Your task to perform on an android device: change alarm snooze length Image 0: 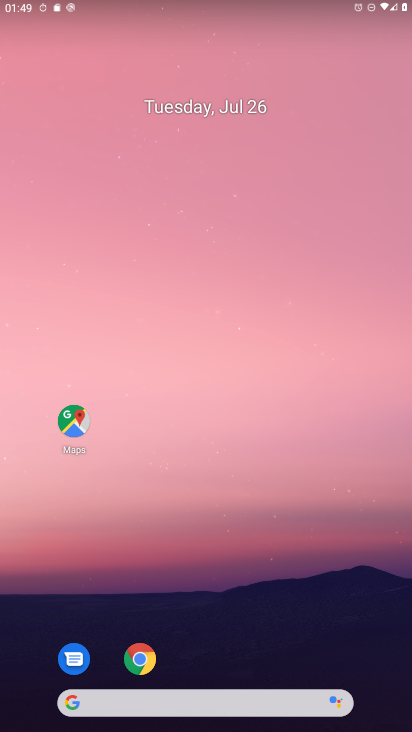
Step 0: press home button
Your task to perform on an android device: change alarm snooze length Image 1: 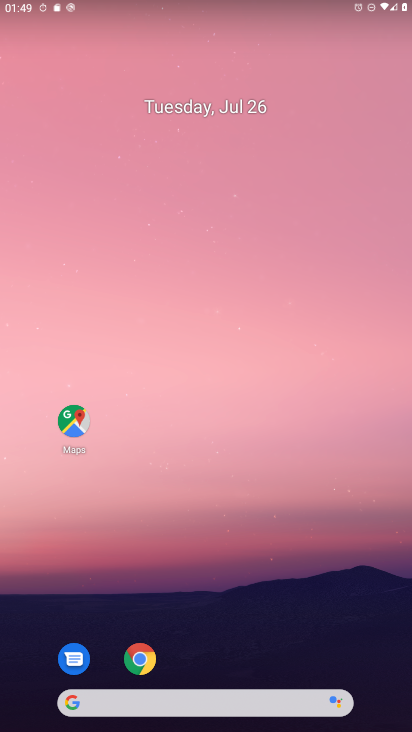
Step 1: drag from (264, 463) to (244, 128)
Your task to perform on an android device: change alarm snooze length Image 2: 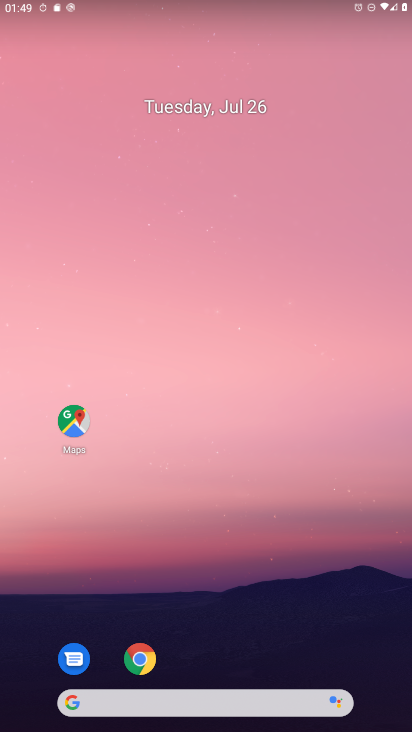
Step 2: drag from (298, 691) to (298, 204)
Your task to perform on an android device: change alarm snooze length Image 3: 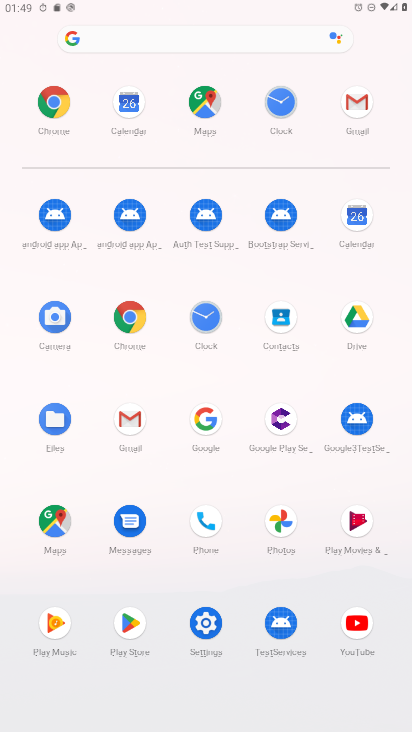
Step 3: click (199, 302)
Your task to perform on an android device: change alarm snooze length Image 4: 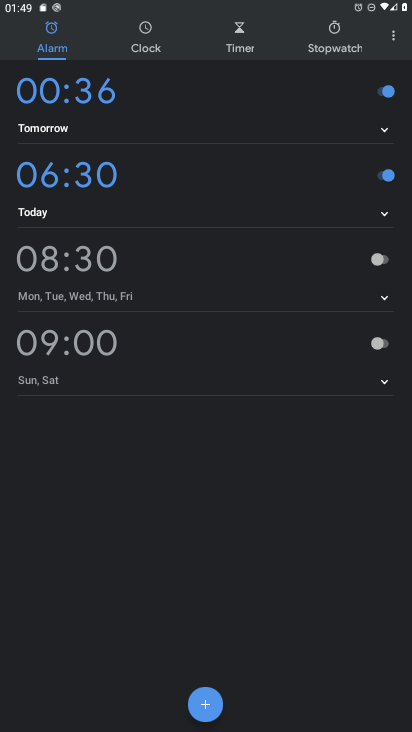
Step 4: click (381, 41)
Your task to perform on an android device: change alarm snooze length Image 5: 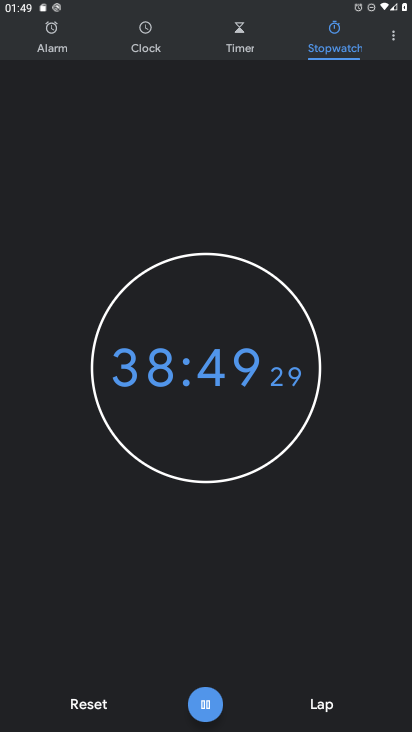
Step 5: click (383, 29)
Your task to perform on an android device: change alarm snooze length Image 6: 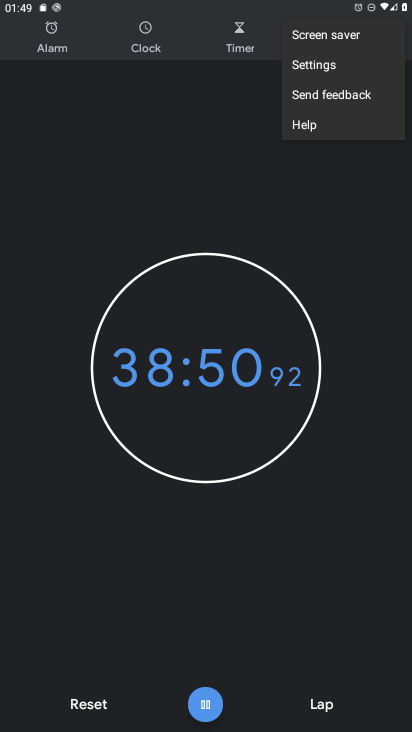
Step 6: click (316, 62)
Your task to perform on an android device: change alarm snooze length Image 7: 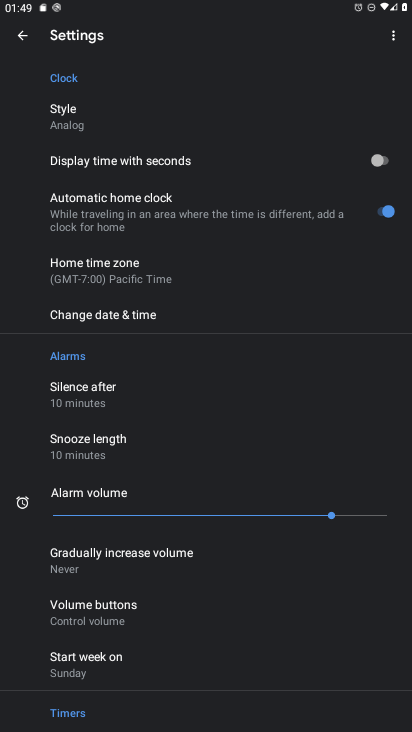
Step 7: click (86, 437)
Your task to perform on an android device: change alarm snooze length Image 8: 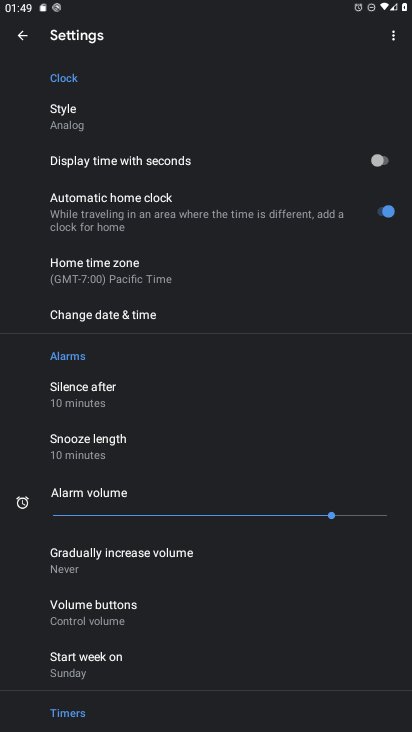
Step 8: click (86, 437)
Your task to perform on an android device: change alarm snooze length Image 9: 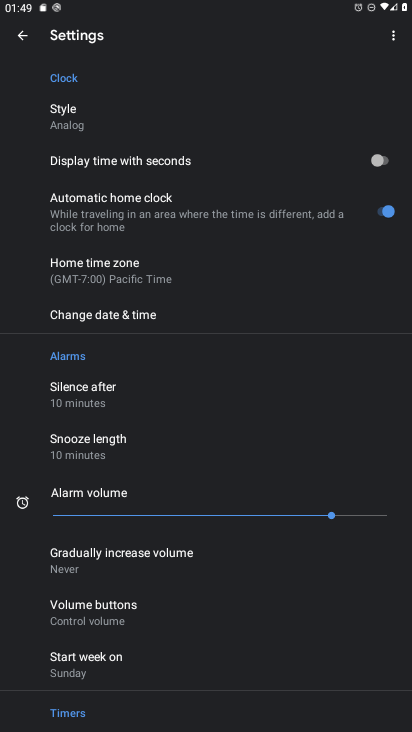
Step 9: click (87, 444)
Your task to perform on an android device: change alarm snooze length Image 10: 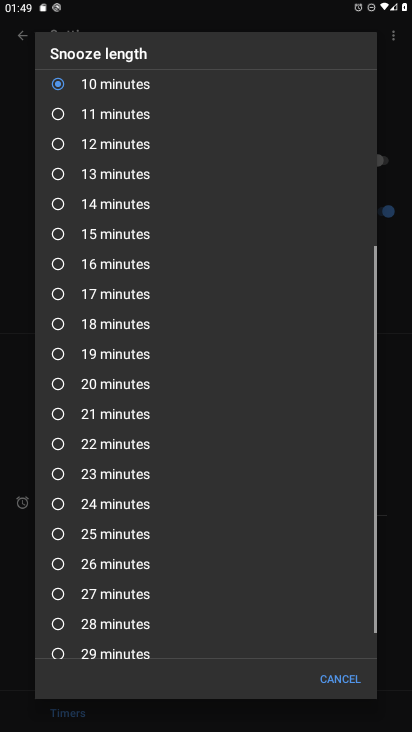
Step 10: click (87, 448)
Your task to perform on an android device: change alarm snooze length Image 11: 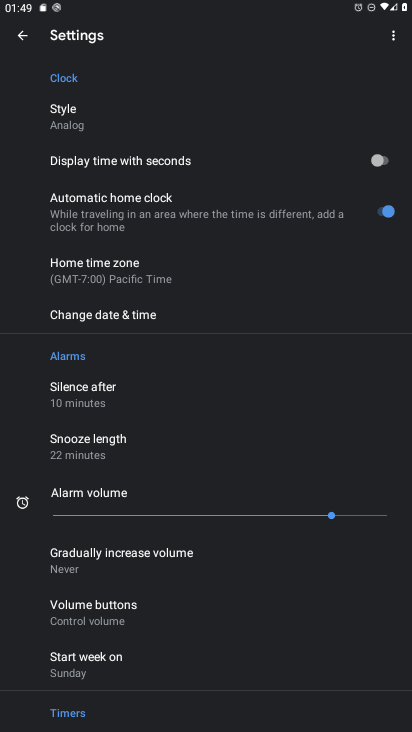
Step 11: task complete